Your task to perform on an android device: Open Google Maps and go to "Timeline" Image 0: 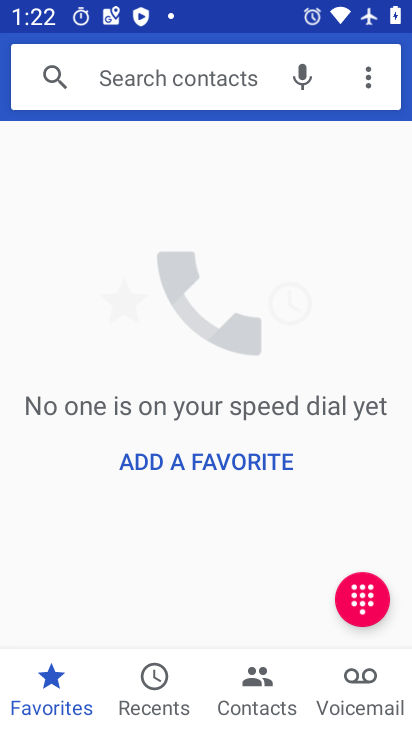
Step 0: press home button
Your task to perform on an android device: Open Google Maps and go to "Timeline" Image 1: 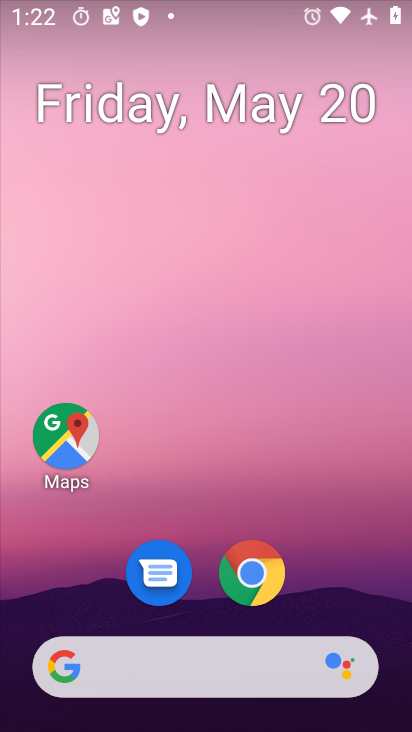
Step 1: click (53, 440)
Your task to perform on an android device: Open Google Maps and go to "Timeline" Image 2: 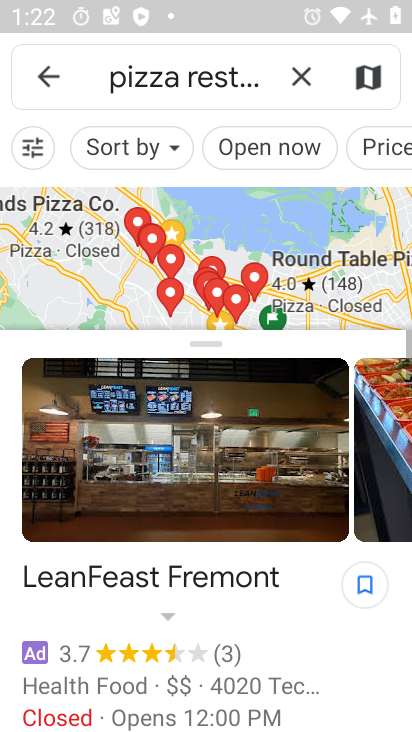
Step 2: click (303, 81)
Your task to perform on an android device: Open Google Maps and go to "Timeline" Image 3: 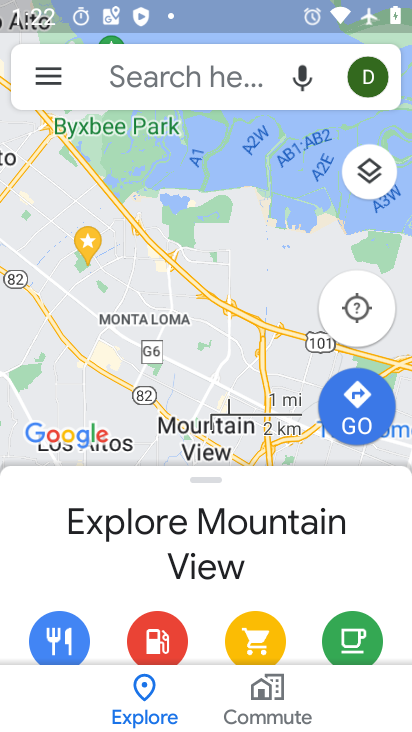
Step 3: click (45, 70)
Your task to perform on an android device: Open Google Maps and go to "Timeline" Image 4: 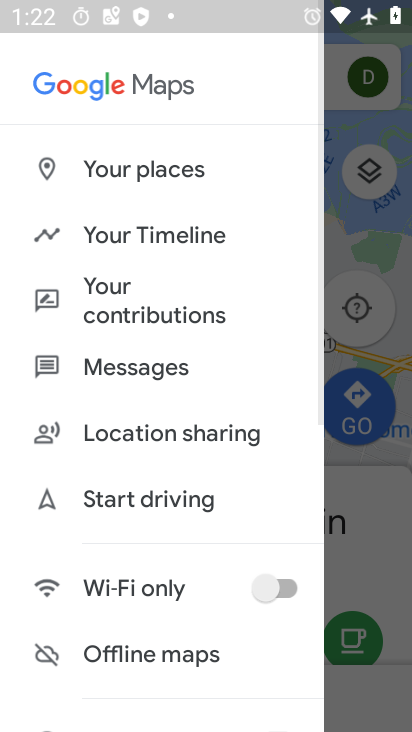
Step 4: click (145, 226)
Your task to perform on an android device: Open Google Maps and go to "Timeline" Image 5: 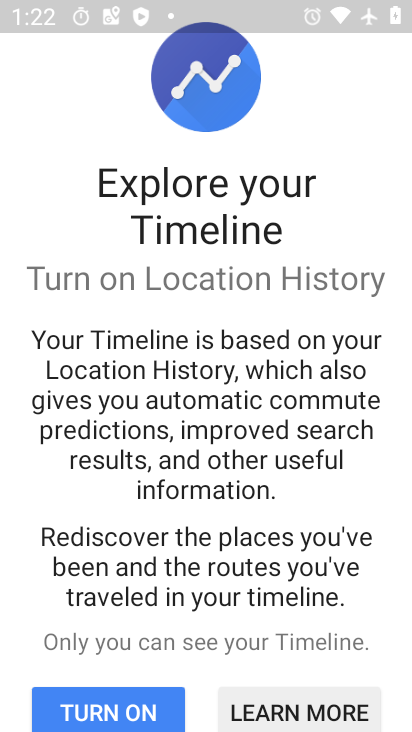
Step 5: drag from (236, 493) to (249, 216)
Your task to perform on an android device: Open Google Maps and go to "Timeline" Image 6: 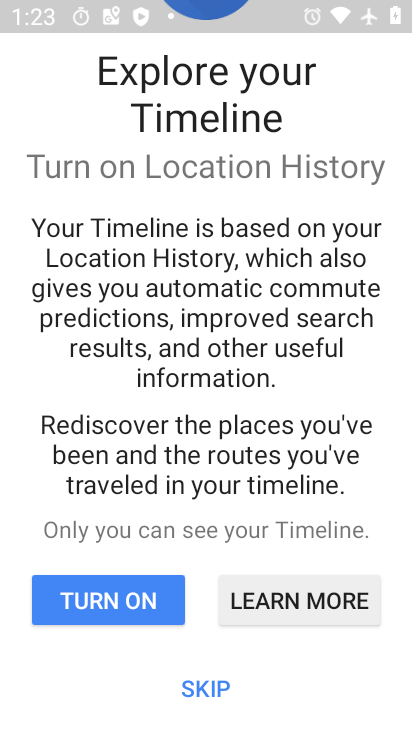
Step 6: click (180, 687)
Your task to perform on an android device: Open Google Maps and go to "Timeline" Image 7: 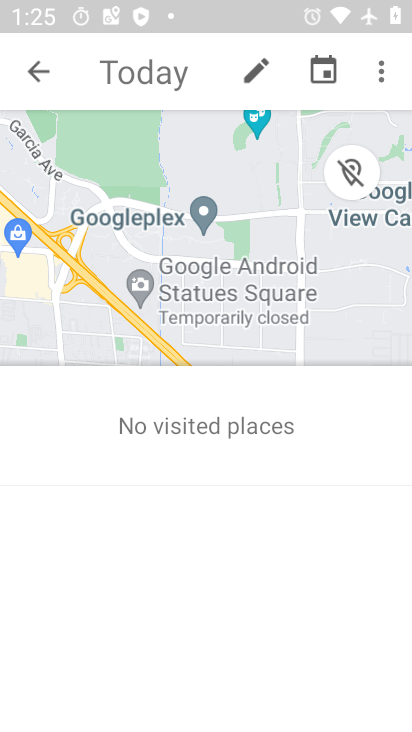
Step 7: task complete